Your task to perform on an android device: toggle show notifications on the lock screen Image 0: 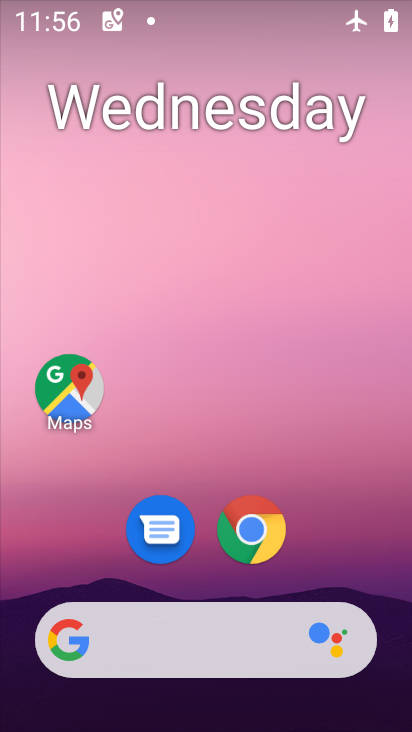
Step 0: drag from (404, 644) to (257, 116)
Your task to perform on an android device: toggle show notifications on the lock screen Image 1: 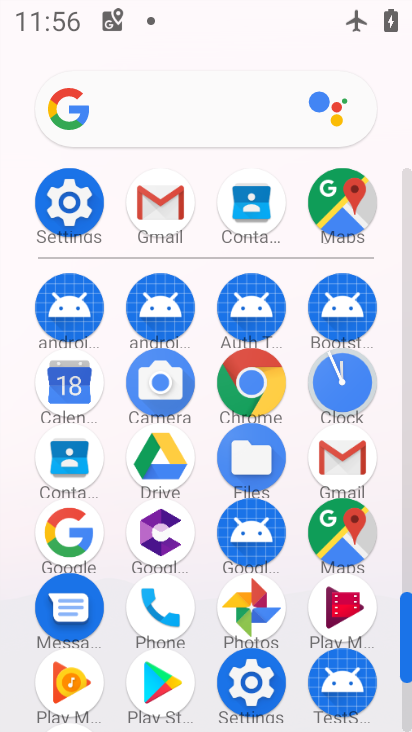
Step 1: click (252, 683)
Your task to perform on an android device: toggle show notifications on the lock screen Image 2: 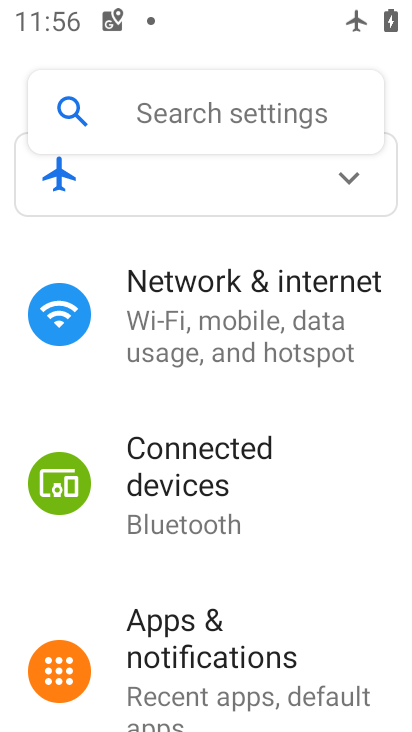
Step 2: drag from (350, 689) to (322, 343)
Your task to perform on an android device: toggle show notifications on the lock screen Image 3: 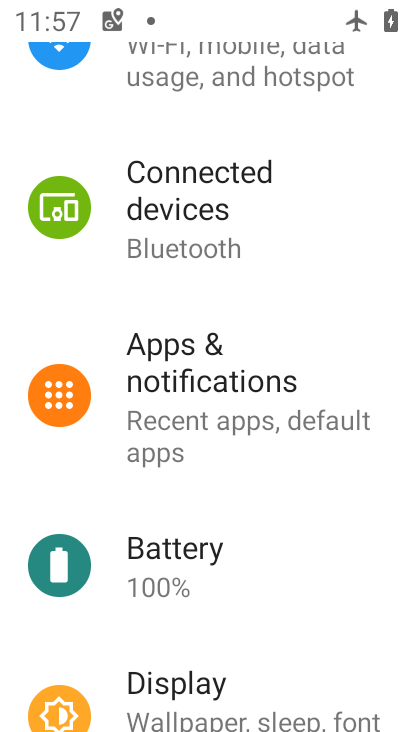
Step 3: click (183, 397)
Your task to perform on an android device: toggle show notifications on the lock screen Image 4: 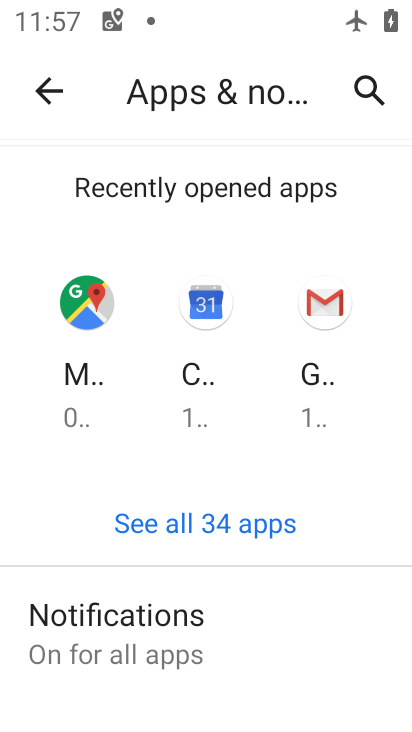
Step 4: drag from (333, 646) to (271, 275)
Your task to perform on an android device: toggle show notifications on the lock screen Image 5: 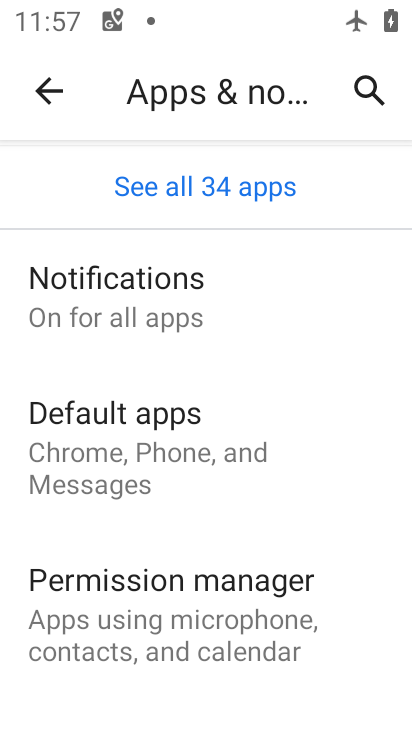
Step 5: click (121, 274)
Your task to perform on an android device: toggle show notifications on the lock screen Image 6: 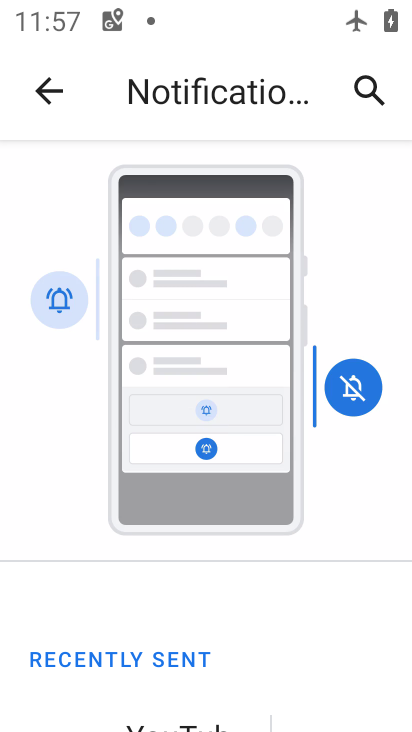
Step 6: drag from (278, 682) to (234, 182)
Your task to perform on an android device: toggle show notifications on the lock screen Image 7: 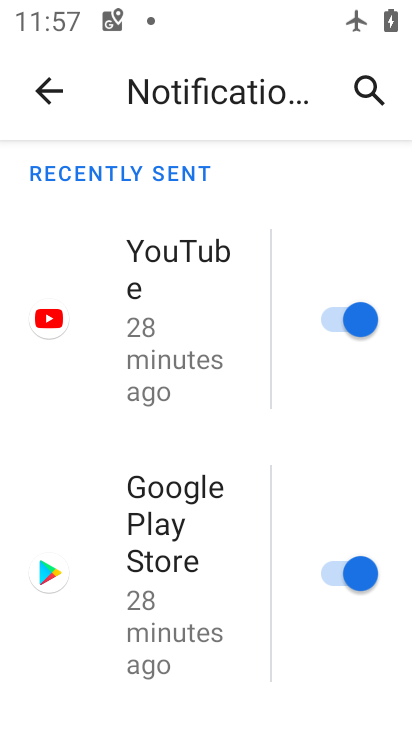
Step 7: drag from (278, 700) to (214, 247)
Your task to perform on an android device: toggle show notifications on the lock screen Image 8: 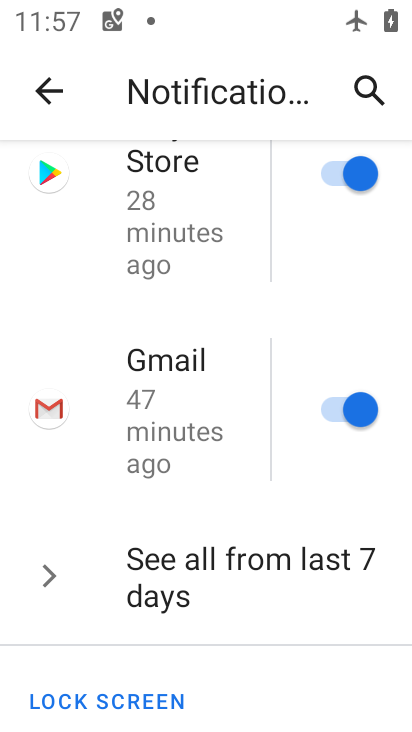
Step 8: drag from (273, 636) to (202, 120)
Your task to perform on an android device: toggle show notifications on the lock screen Image 9: 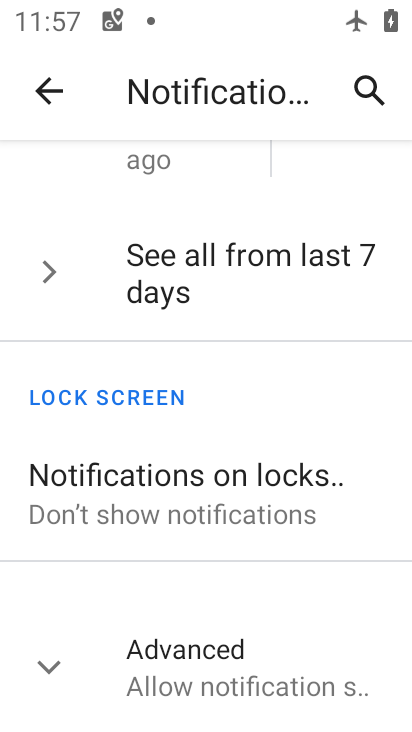
Step 9: click (153, 494)
Your task to perform on an android device: toggle show notifications on the lock screen Image 10: 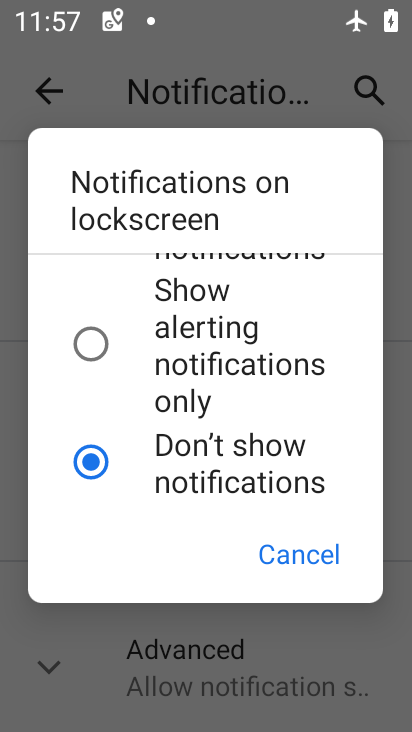
Step 10: drag from (217, 412) to (208, 527)
Your task to perform on an android device: toggle show notifications on the lock screen Image 11: 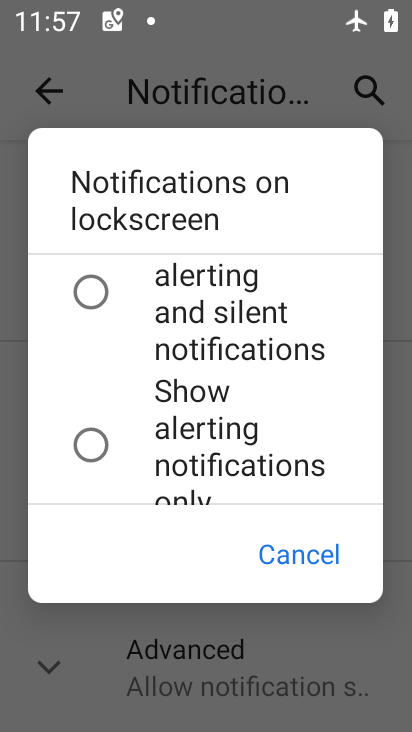
Step 11: click (94, 297)
Your task to perform on an android device: toggle show notifications on the lock screen Image 12: 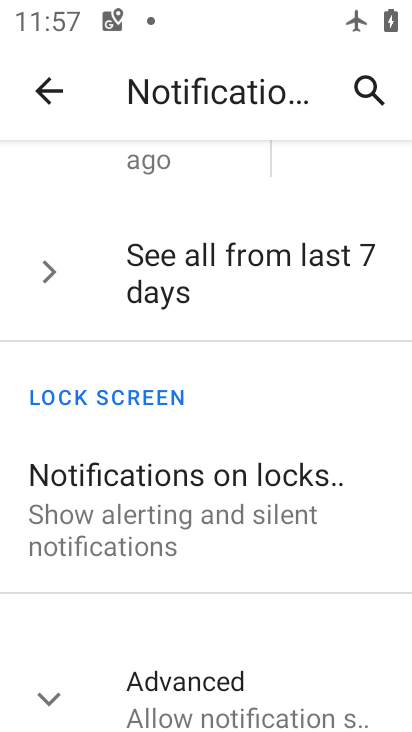
Step 12: task complete